Your task to perform on an android device: show emergency info Image 0: 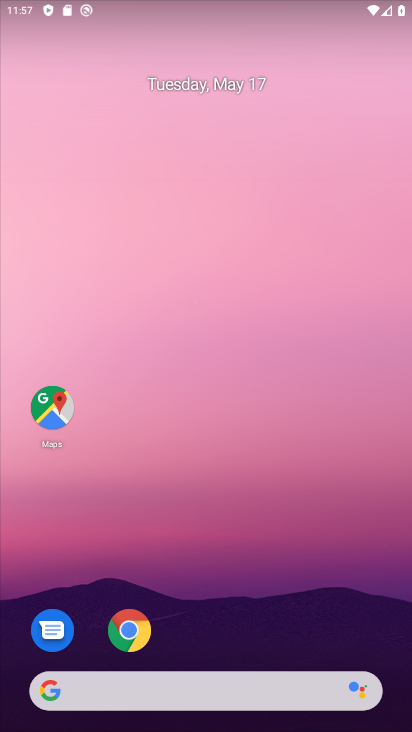
Step 0: drag from (248, 592) to (320, 227)
Your task to perform on an android device: show emergency info Image 1: 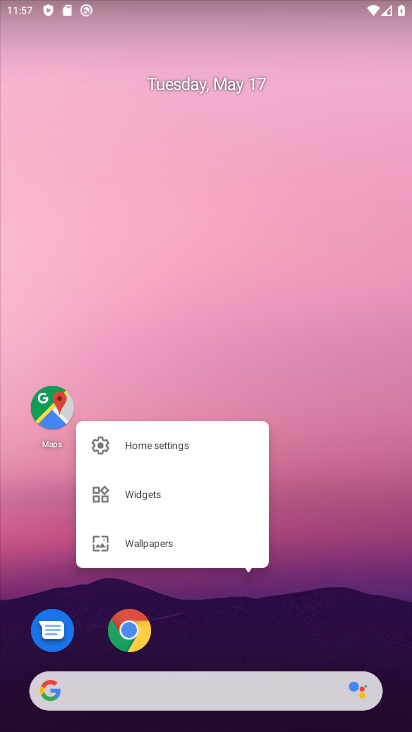
Step 1: press home button
Your task to perform on an android device: show emergency info Image 2: 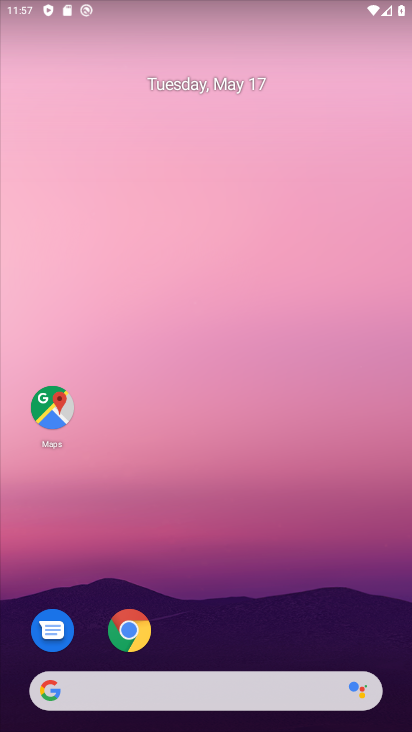
Step 2: press home button
Your task to perform on an android device: show emergency info Image 3: 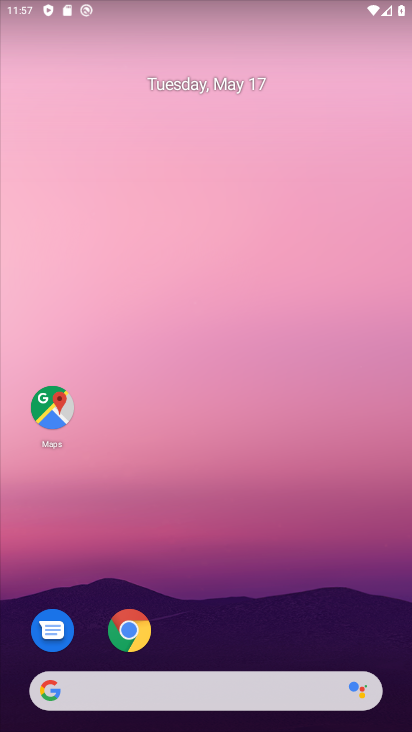
Step 3: press home button
Your task to perform on an android device: show emergency info Image 4: 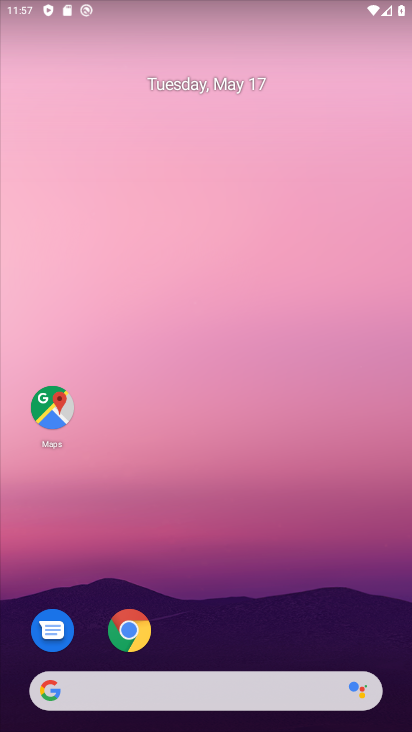
Step 4: drag from (242, 529) to (368, 30)
Your task to perform on an android device: show emergency info Image 5: 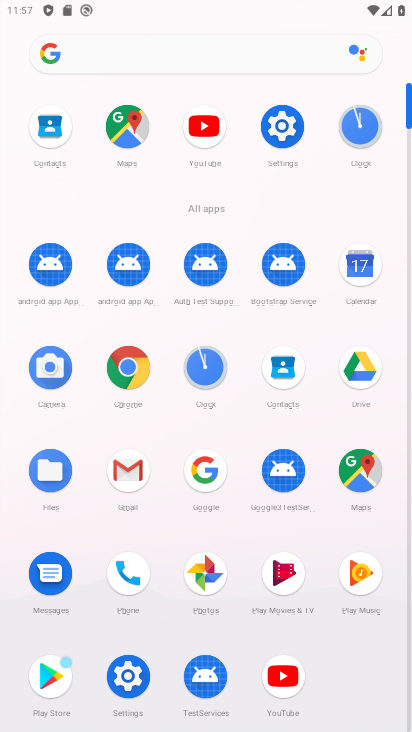
Step 5: click (290, 128)
Your task to perform on an android device: show emergency info Image 6: 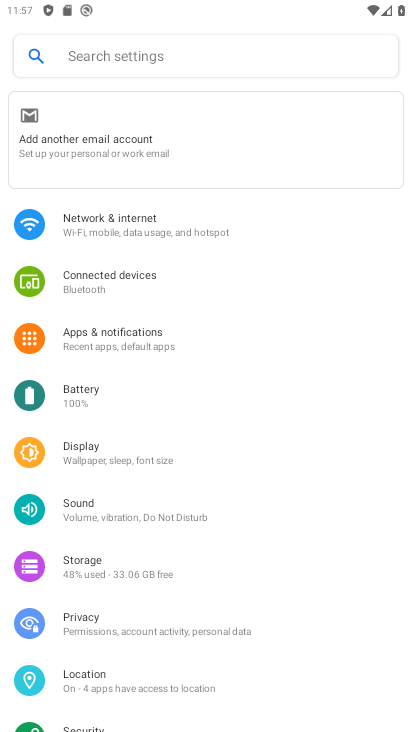
Step 6: drag from (195, 589) to (227, 352)
Your task to perform on an android device: show emergency info Image 7: 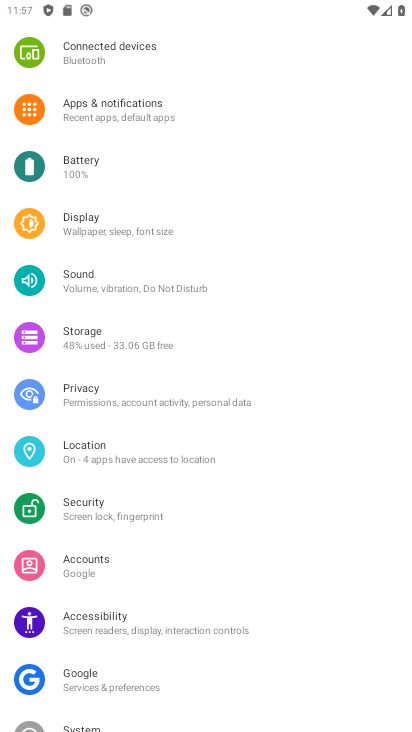
Step 7: drag from (247, 568) to (379, 140)
Your task to perform on an android device: show emergency info Image 8: 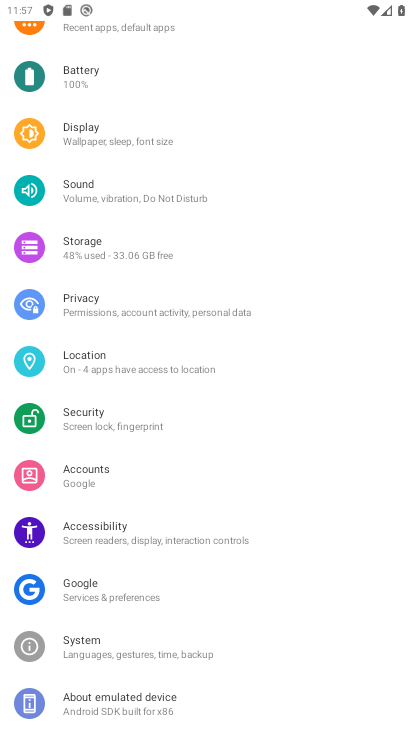
Step 8: drag from (314, 177) to (146, 659)
Your task to perform on an android device: show emergency info Image 9: 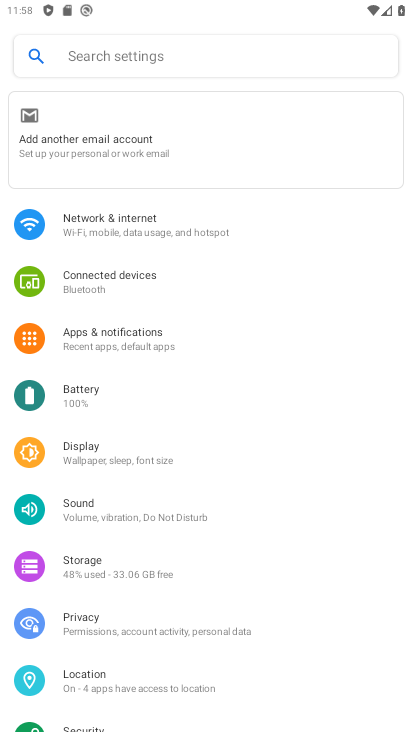
Step 9: drag from (320, 678) to (354, 283)
Your task to perform on an android device: show emergency info Image 10: 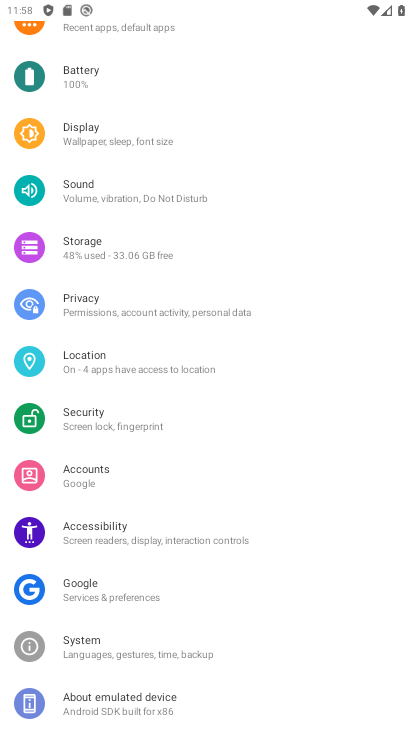
Step 10: drag from (240, 140) to (148, 543)
Your task to perform on an android device: show emergency info Image 11: 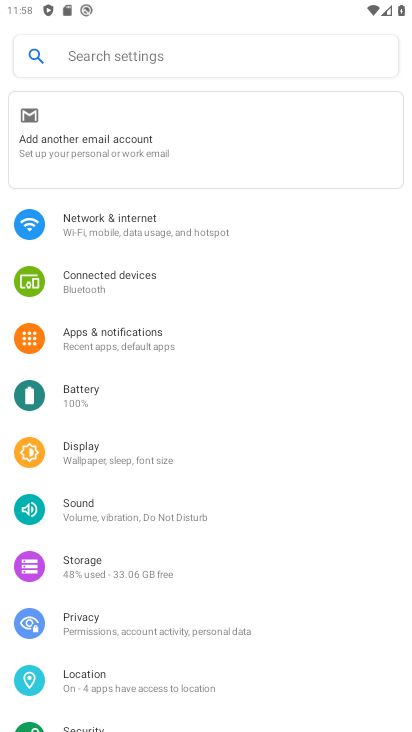
Step 11: drag from (306, 653) to (305, 113)
Your task to perform on an android device: show emergency info Image 12: 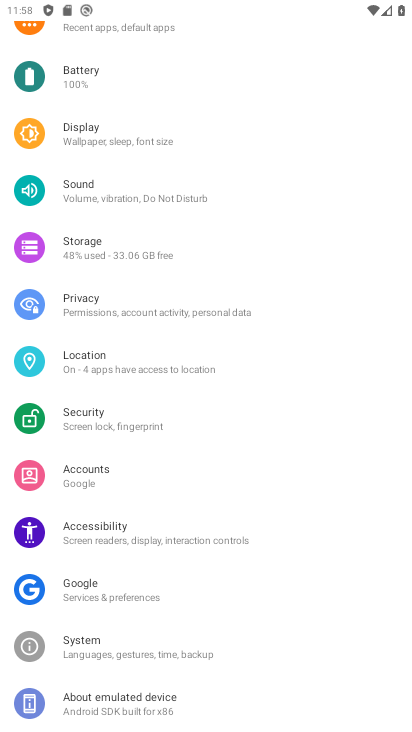
Step 12: click (103, 695)
Your task to perform on an android device: show emergency info Image 13: 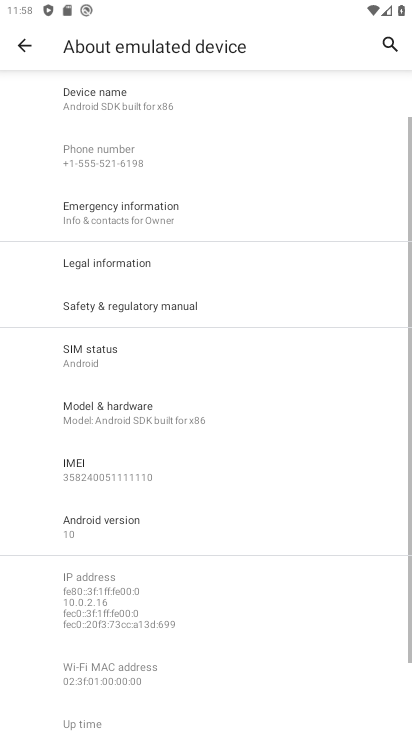
Step 13: click (90, 198)
Your task to perform on an android device: show emergency info Image 14: 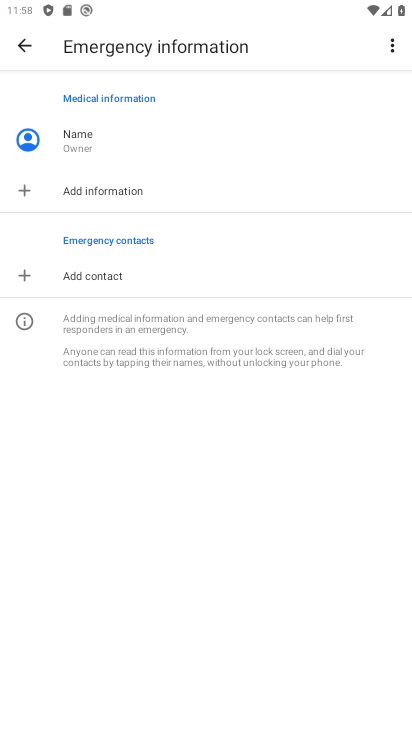
Step 14: task complete